Your task to perform on an android device: move an email to a new category in the gmail app Image 0: 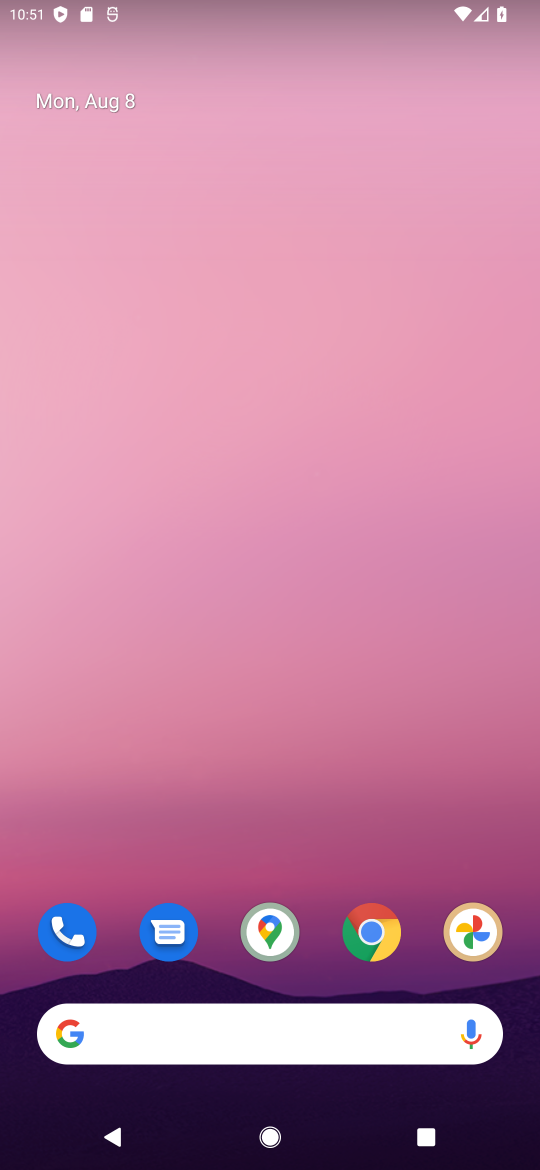
Step 0: click (256, 993)
Your task to perform on an android device: move an email to a new category in the gmail app Image 1: 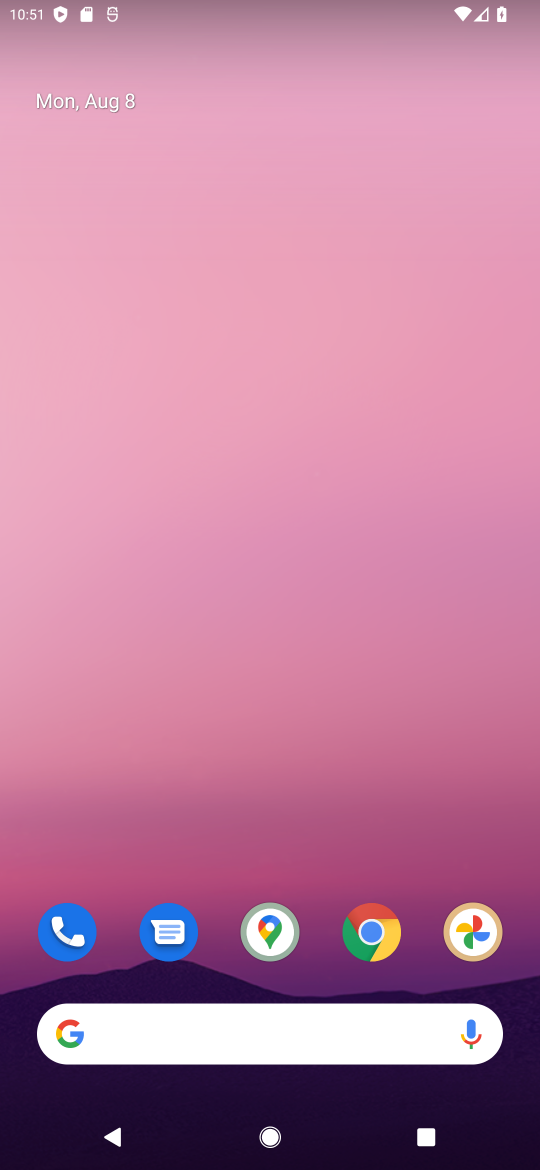
Step 1: drag from (256, 993) to (359, 299)
Your task to perform on an android device: move an email to a new category in the gmail app Image 2: 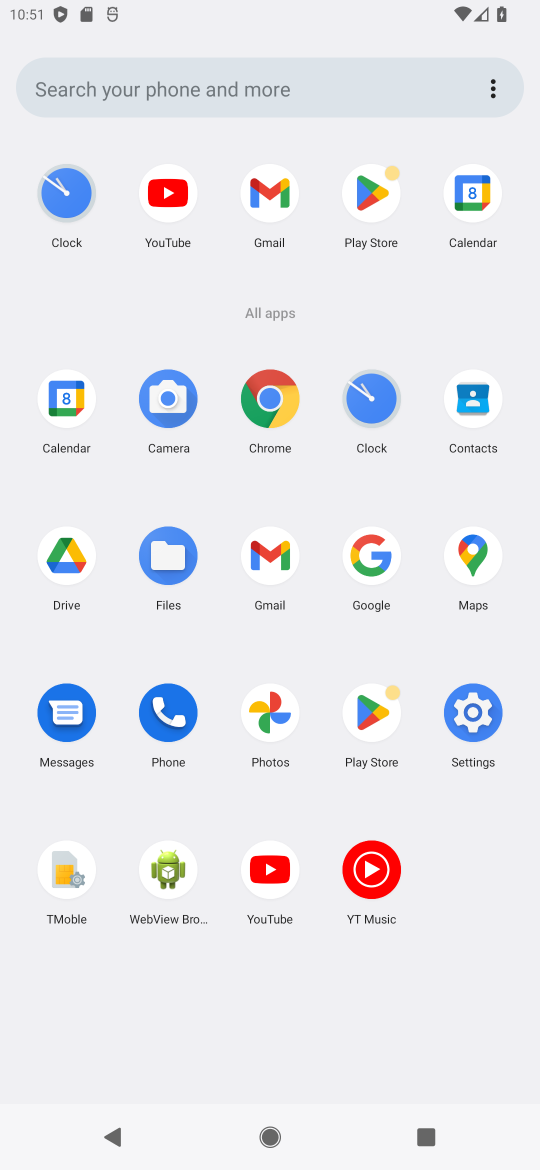
Step 2: click (285, 214)
Your task to perform on an android device: move an email to a new category in the gmail app Image 3: 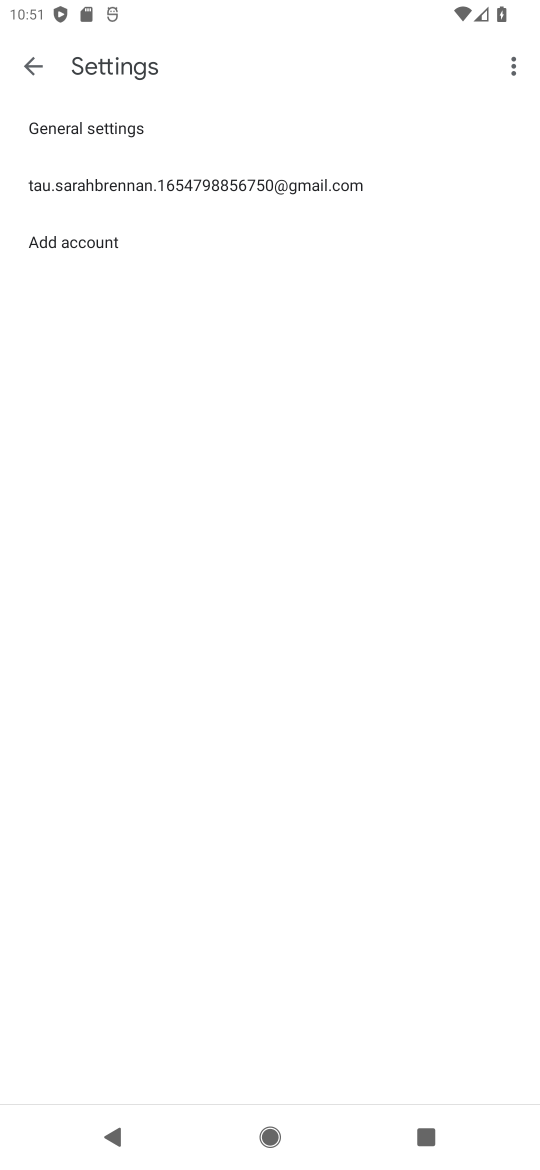
Step 3: click (18, 71)
Your task to perform on an android device: move an email to a new category in the gmail app Image 4: 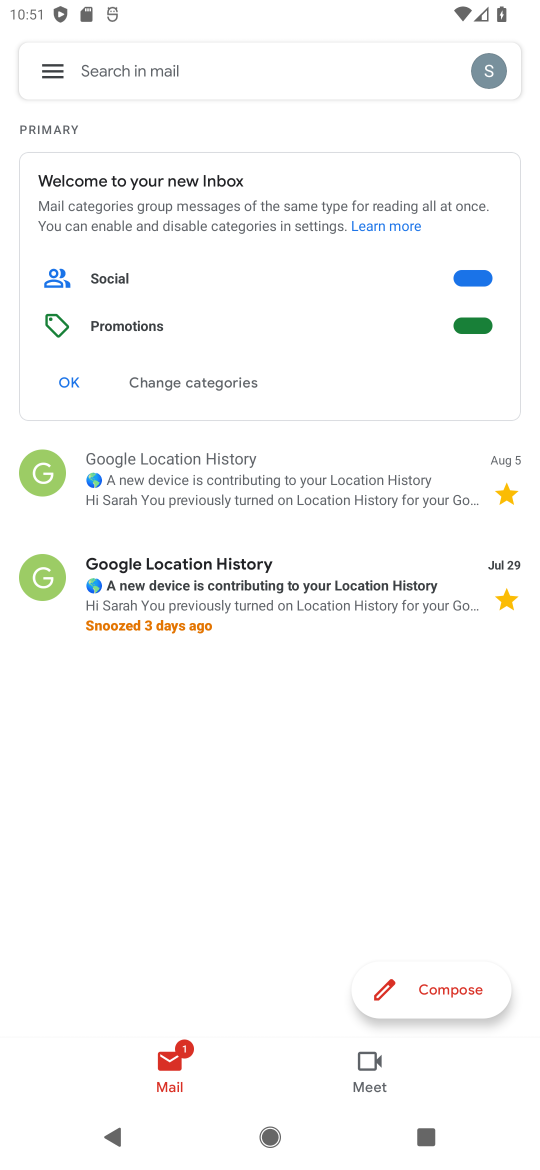
Step 4: click (42, 455)
Your task to perform on an android device: move an email to a new category in the gmail app Image 5: 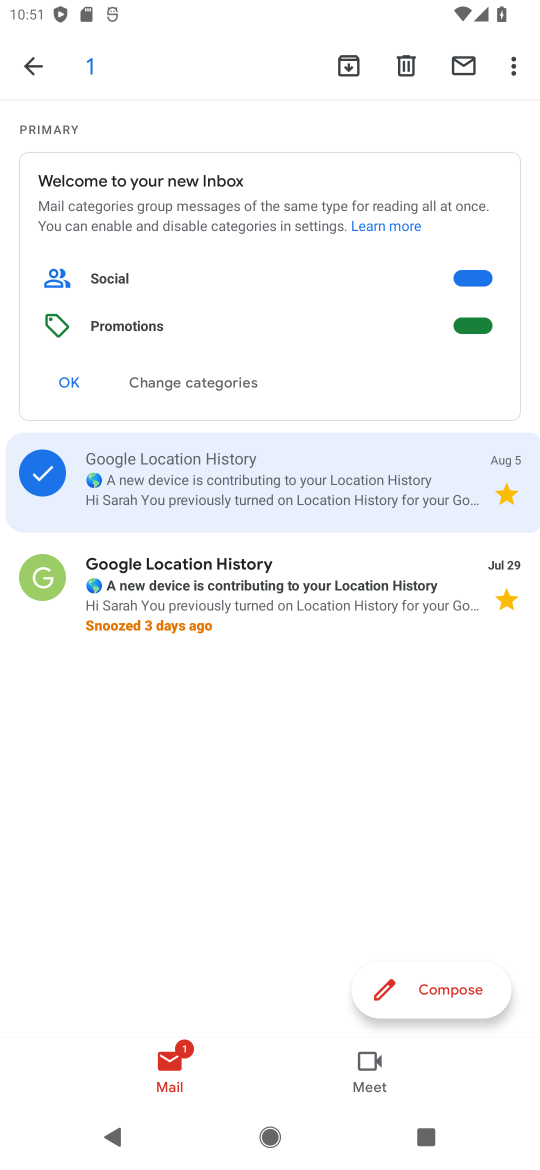
Step 5: click (524, 67)
Your task to perform on an android device: move an email to a new category in the gmail app Image 6: 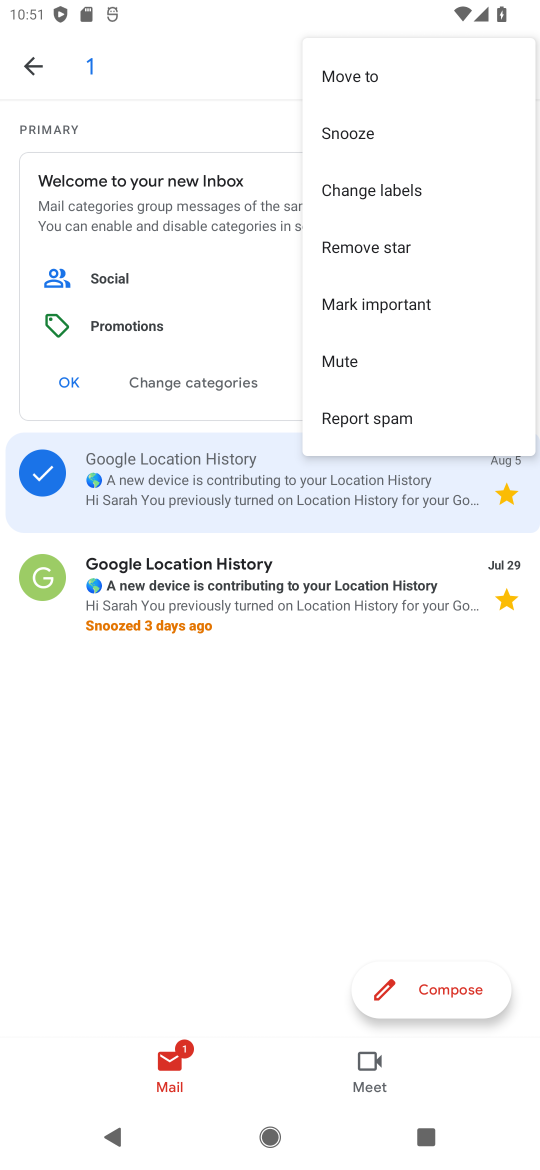
Step 6: click (420, 79)
Your task to perform on an android device: move an email to a new category in the gmail app Image 7: 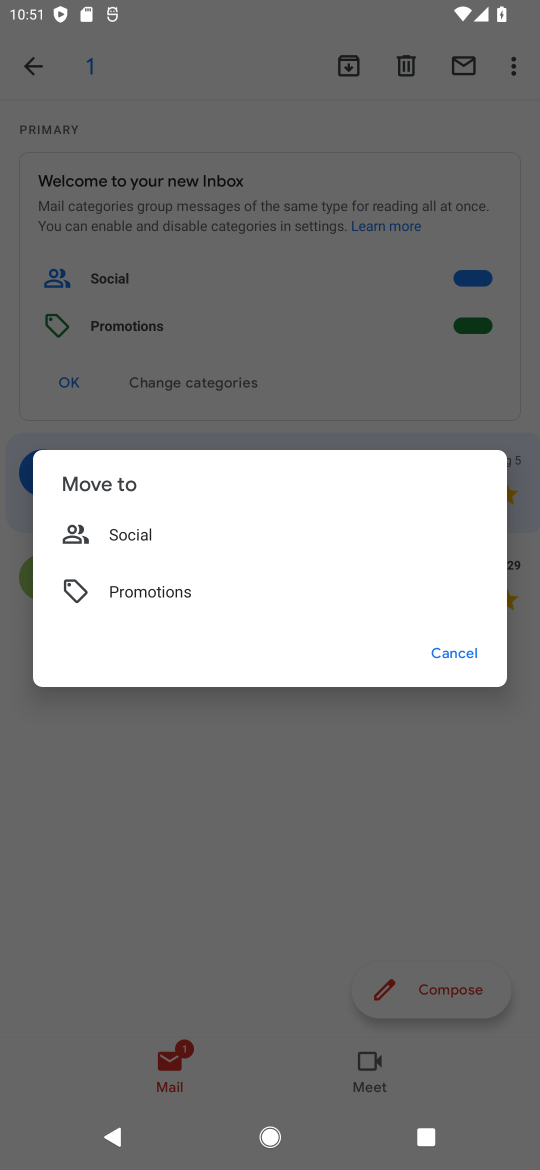
Step 7: click (160, 525)
Your task to perform on an android device: move an email to a new category in the gmail app Image 8: 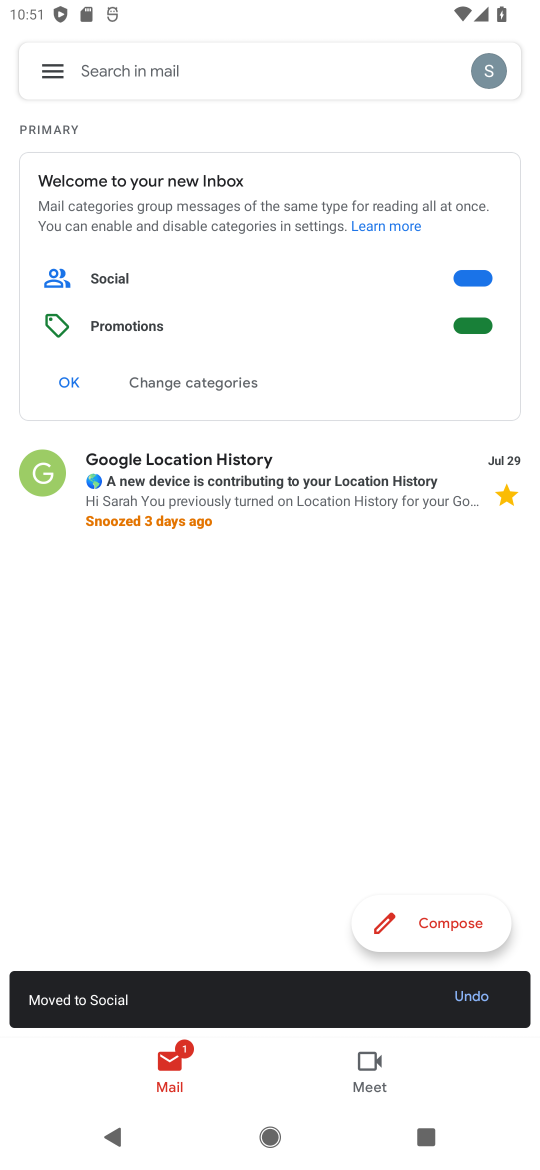
Step 8: task complete